Your task to perform on an android device: What is the news today? Image 0: 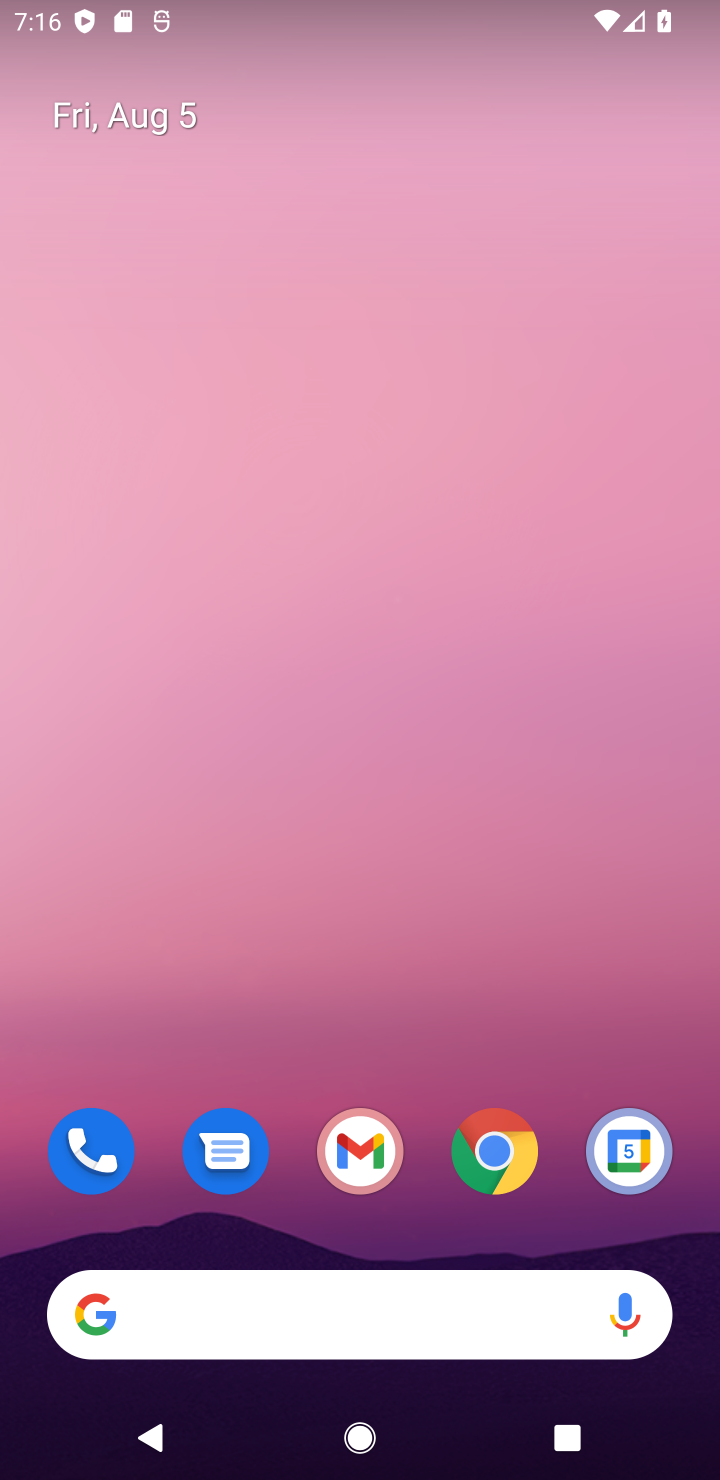
Step 0: click (372, 1287)
Your task to perform on an android device: What is the news today? Image 1: 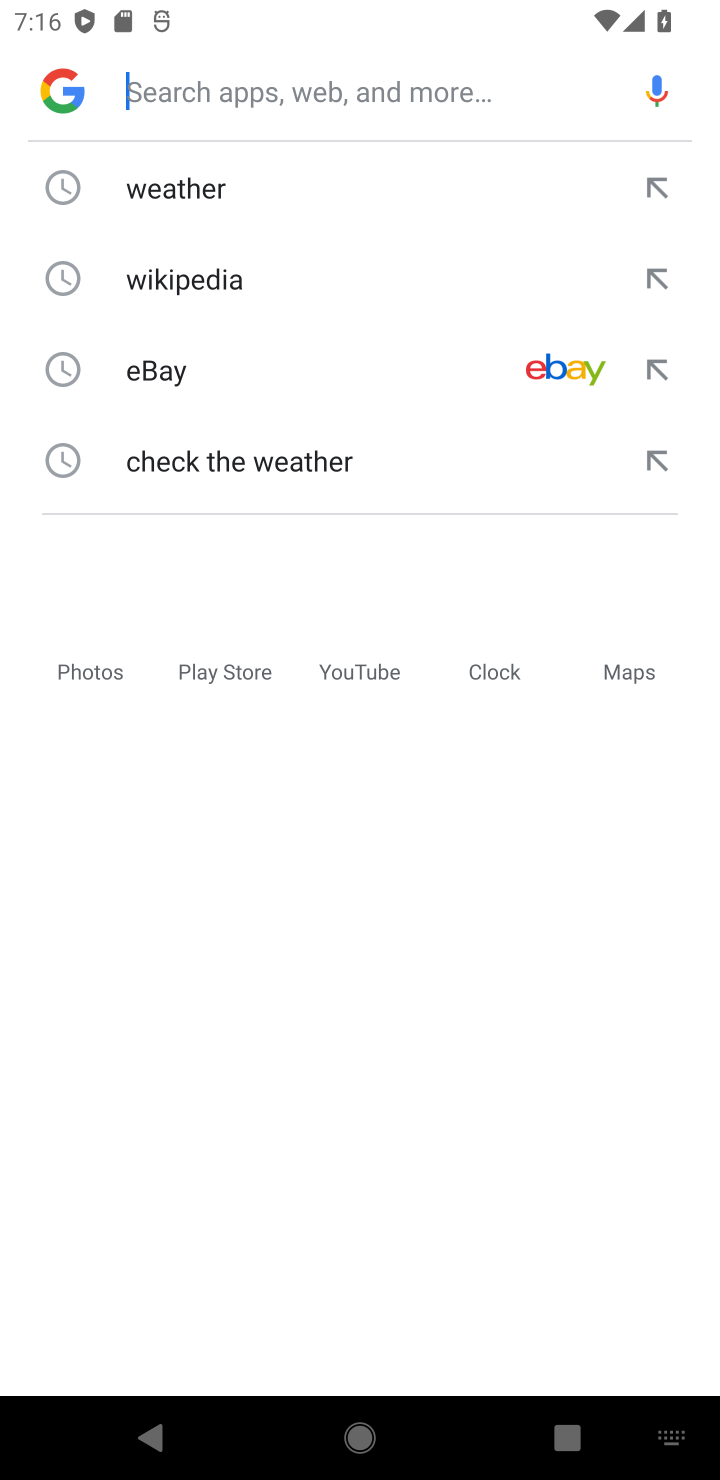
Step 1: type "news"
Your task to perform on an android device: What is the news today? Image 2: 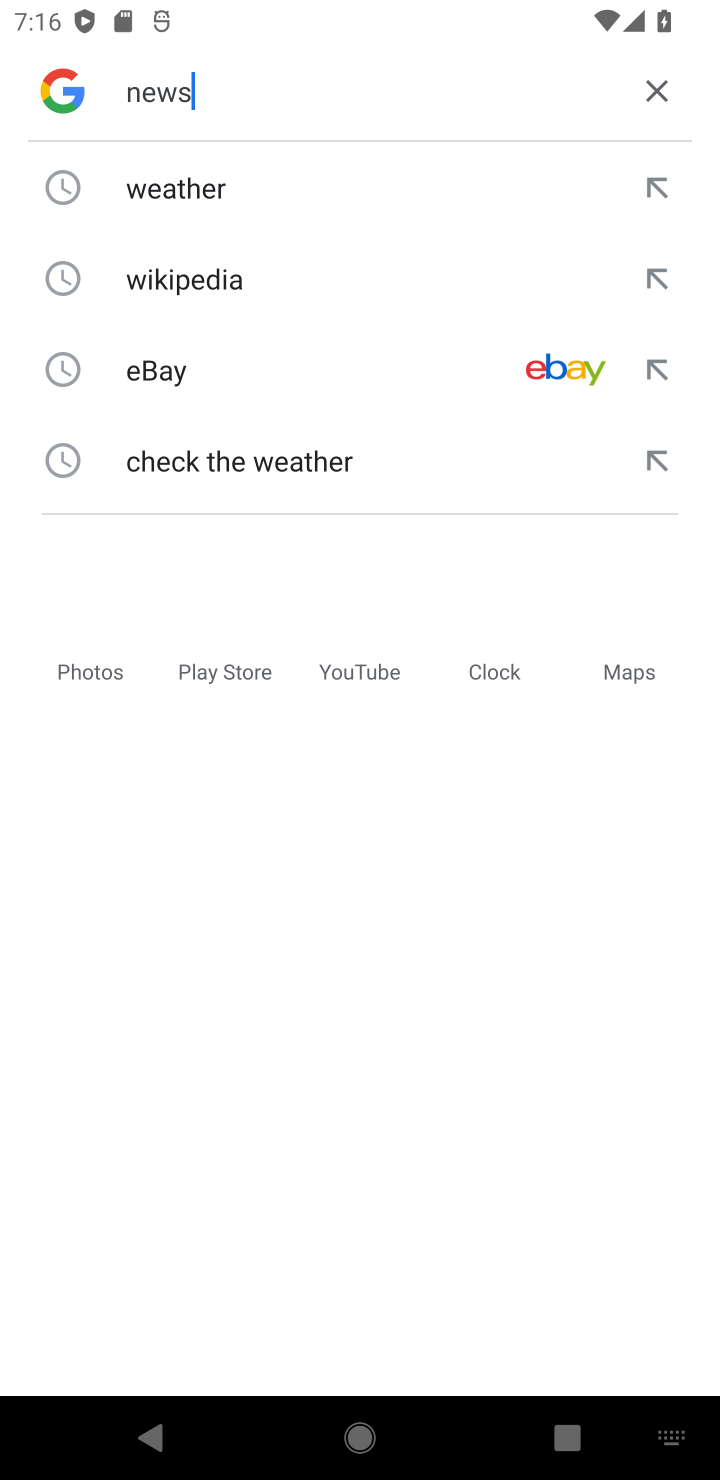
Step 2: type ""
Your task to perform on an android device: What is the news today? Image 3: 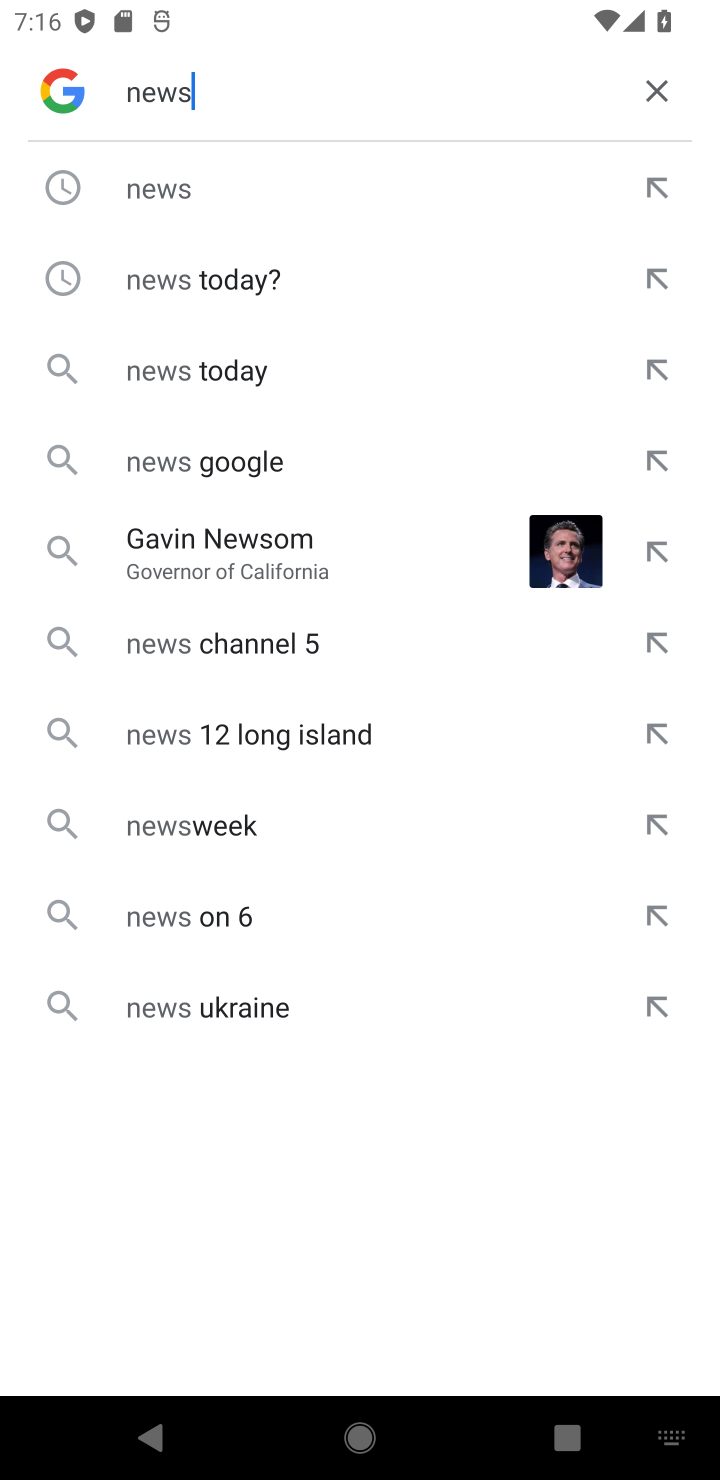
Step 3: task complete